Your task to perform on an android device: Is it going to rain tomorrow? Image 0: 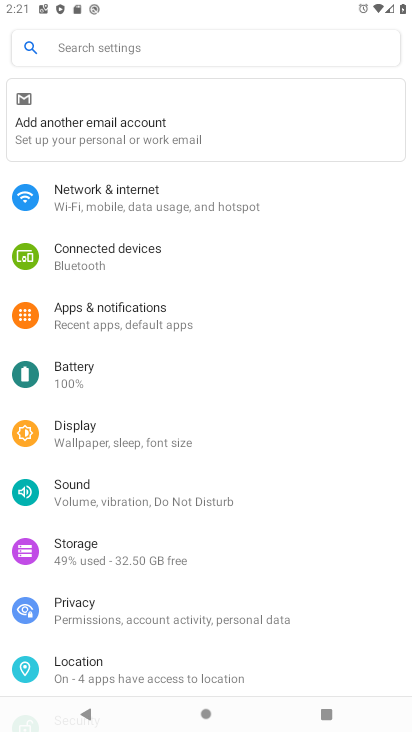
Step 0: press home button
Your task to perform on an android device: Is it going to rain tomorrow? Image 1: 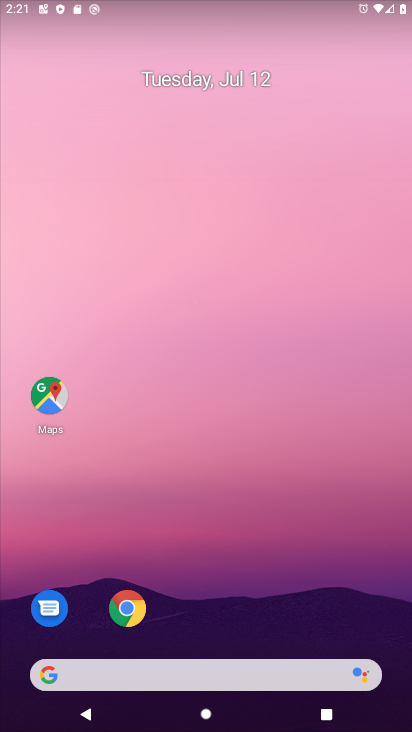
Step 1: drag from (300, 564) to (251, 69)
Your task to perform on an android device: Is it going to rain tomorrow? Image 2: 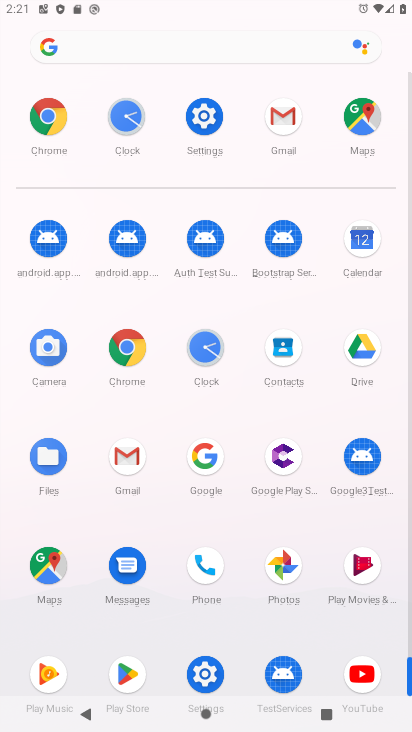
Step 2: click (129, 344)
Your task to perform on an android device: Is it going to rain tomorrow? Image 3: 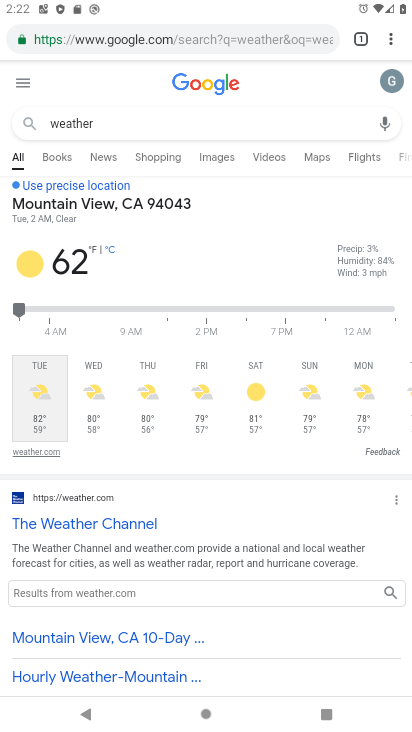
Step 3: click (90, 388)
Your task to perform on an android device: Is it going to rain tomorrow? Image 4: 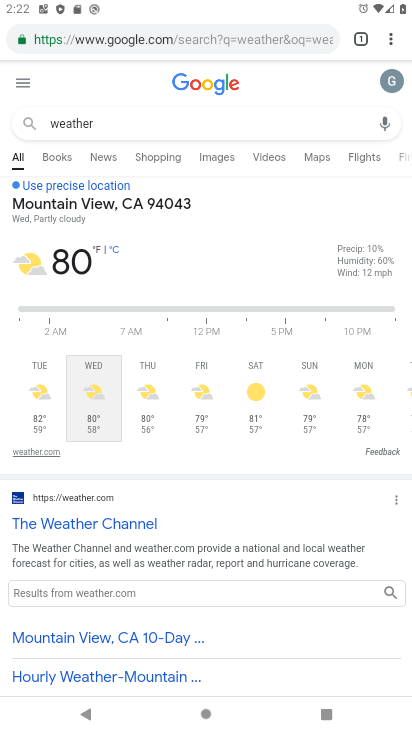
Step 4: task complete